Your task to perform on an android device: Go to calendar. Show me events next week Image 0: 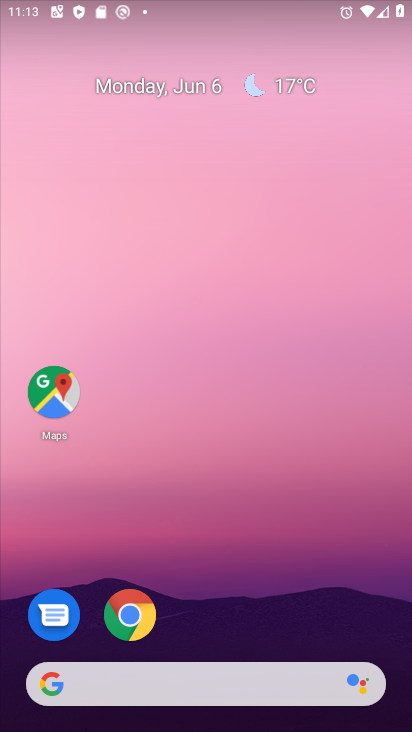
Step 0: drag from (244, 665) to (270, 16)
Your task to perform on an android device: Go to calendar. Show me events next week Image 1: 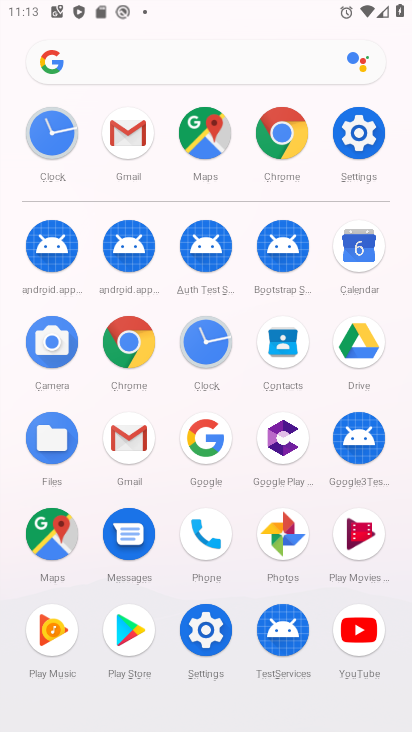
Step 1: click (360, 240)
Your task to perform on an android device: Go to calendar. Show me events next week Image 2: 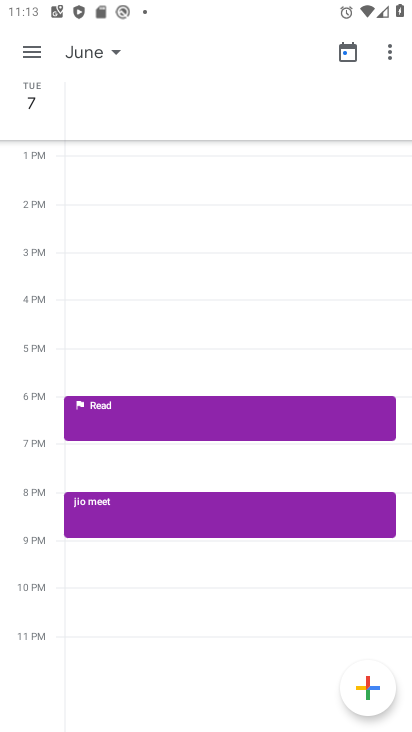
Step 2: click (32, 46)
Your task to perform on an android device: Go to calendar. Show me events next week Image 3: 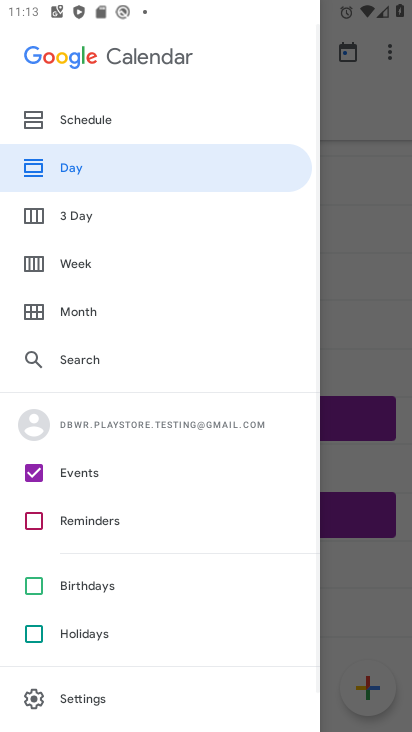
Step 3: click (84, 261)
Your task to perform on an android device: Go to calendar. Show me events next week Image 4: 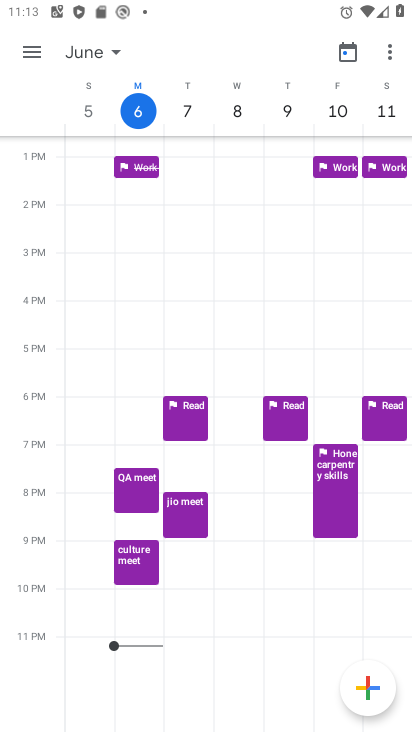
Step 4: drag from (380, 105) to (2, 121)
Your task to perform on an android device: Go to calendar. Show me events next week Image 5: 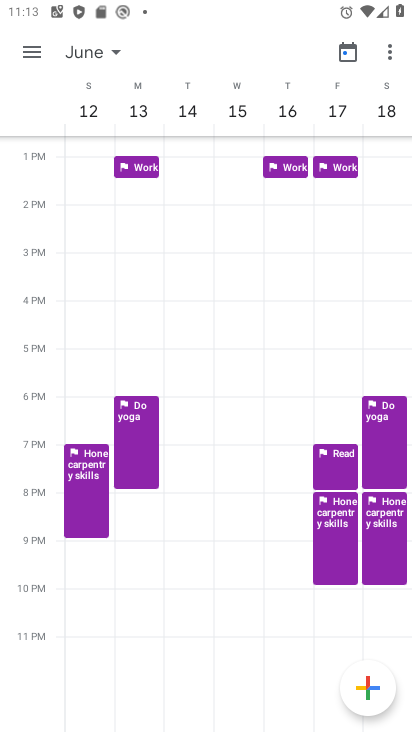
Step 5: click (87, 113)
Your task to perform on an android device: Go to calendar. Show me events next week Image 6: 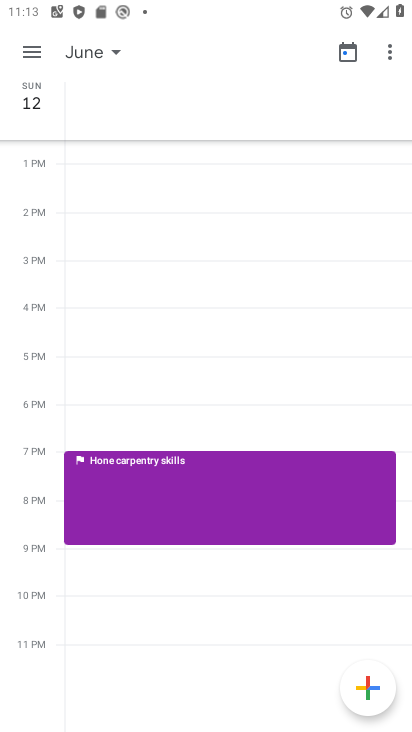
Step 6: click (39, 113)
Your task to perform on an android device: Go to calendar. Show me events next week Image 7: 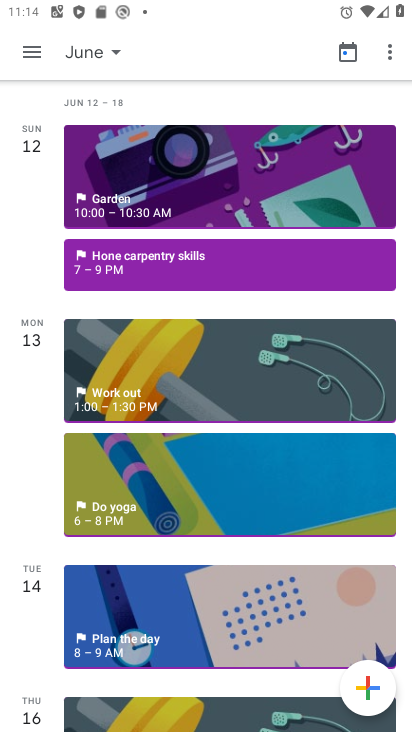
Step 7: task complete